Your task to perform on an android device: visit the assistant section in the google photos Image 0: 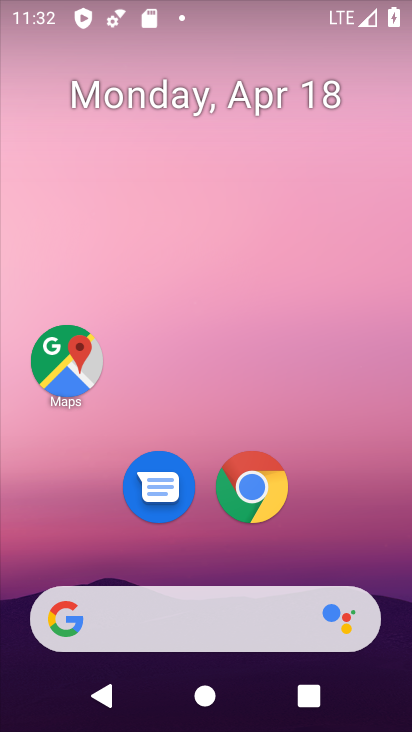
Step 0: drag from (203, 558) to (147, 90)
Your task to perform on an android device: visit the assistant section in the google photos Image 1: 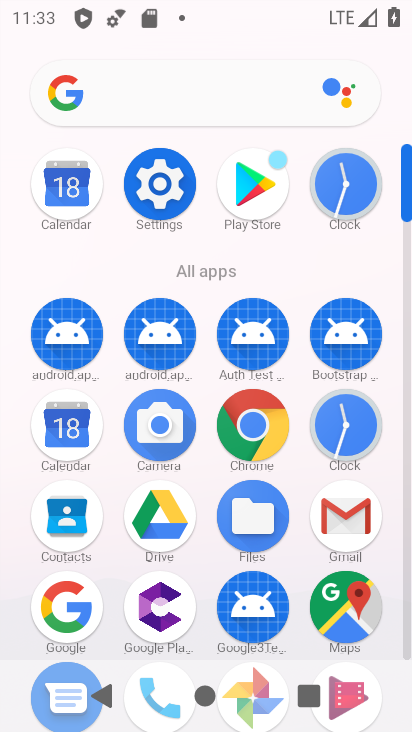
Step 1: drag from (210, 480) to (141, 103)
Your task to perform on an android device: visit the assistant section in the google photos Image 2: 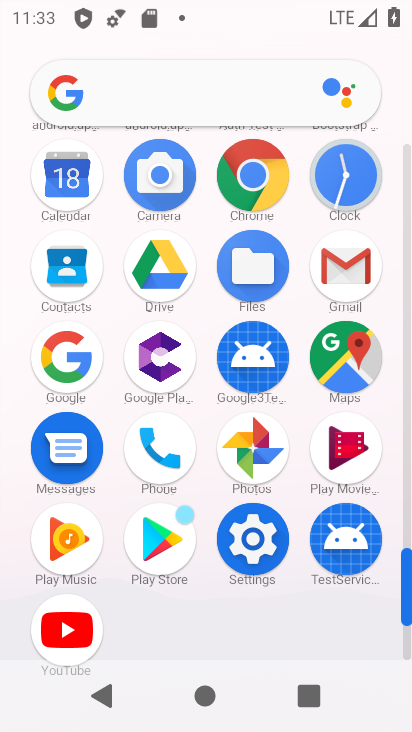
Step 2: click (253, 449)
Your task to perform on an android device: visit the assistant section in the google photos Image 3: 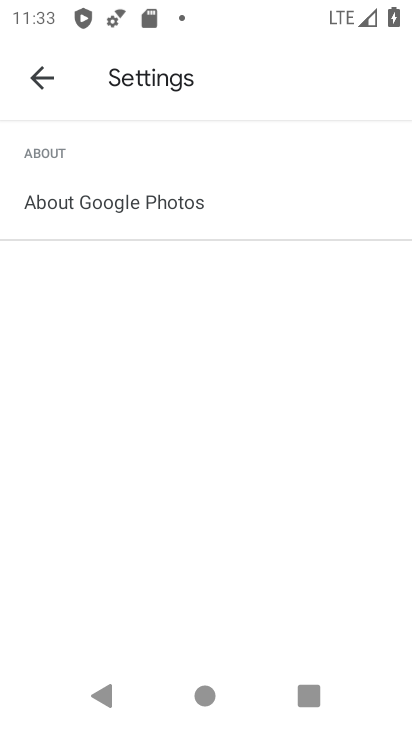
Step 3: click (32, 78)
Your task to perform on an android device: visit the assistant section in the google photos Image 4: 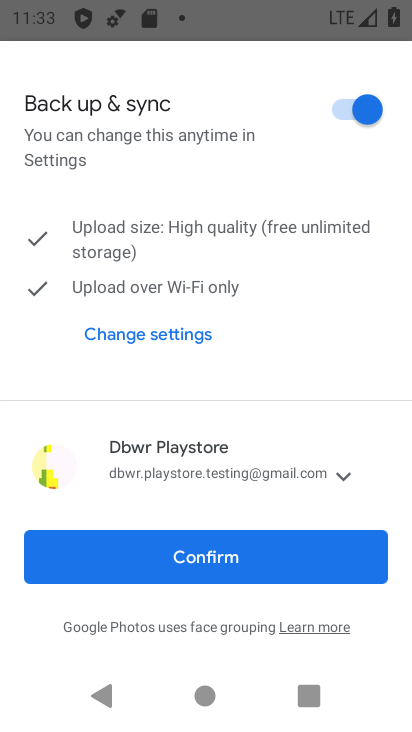
Step 4: click (219, 548)
Your task to perform on an android device: visit the assistant section in the google photos Image 5: 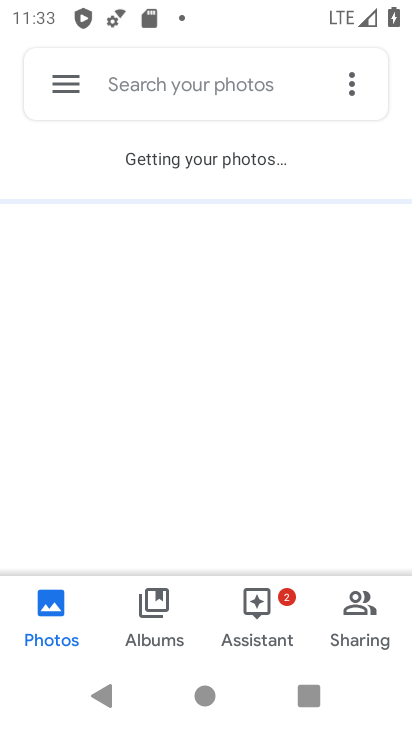
Step 5: click (258, 606)
Your task to perform on an android device: visit the assistant section in the google photos Image 6: 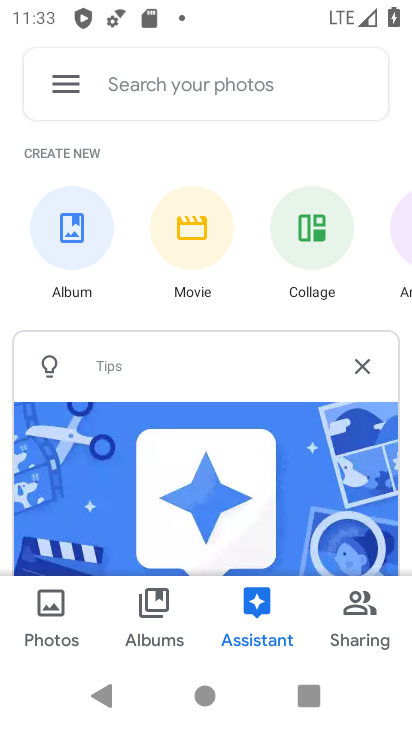
Step 6: task complete